Your task to perform on an android device: Go to Wikipedia Image 0: 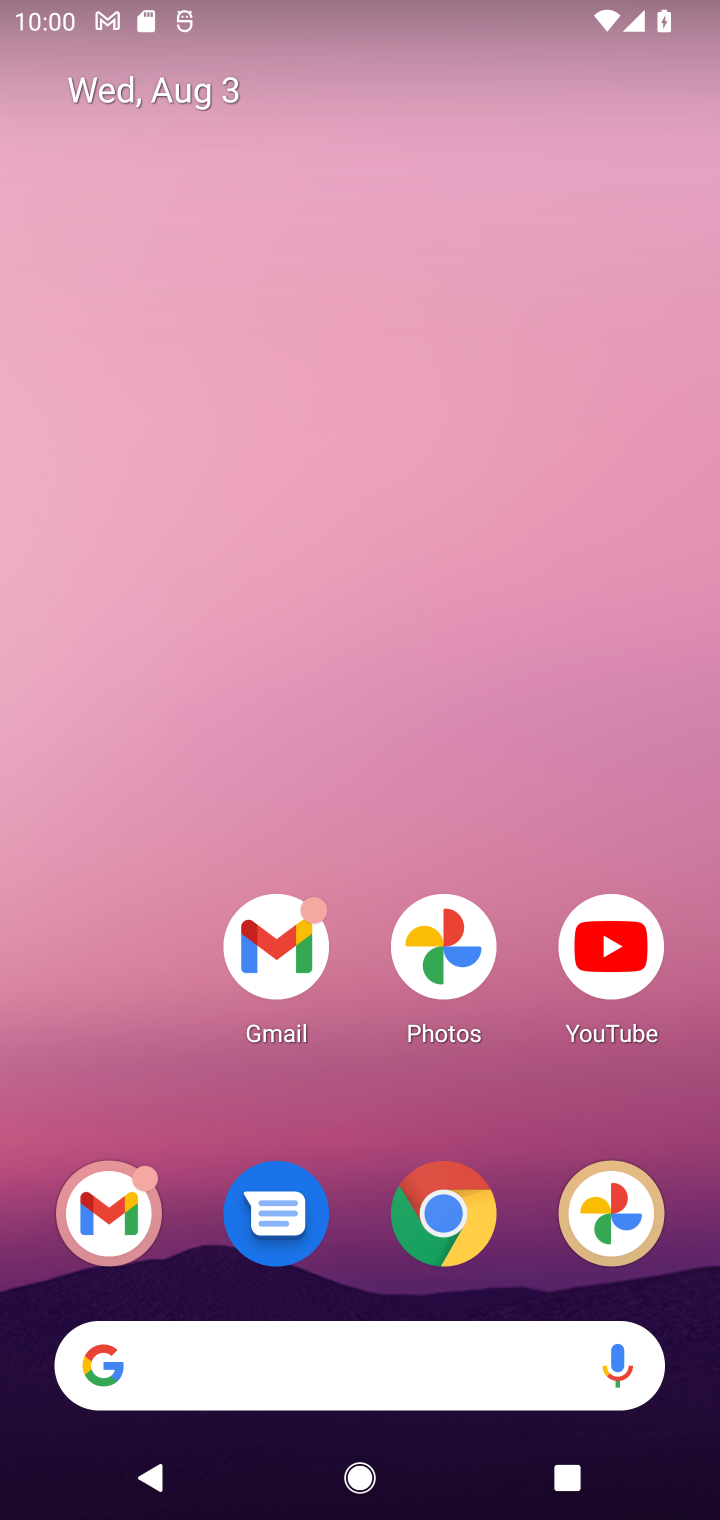
Step 0: click (454, 1232)
Your task to perform on an android device: Go to Wikipedia Image 1: 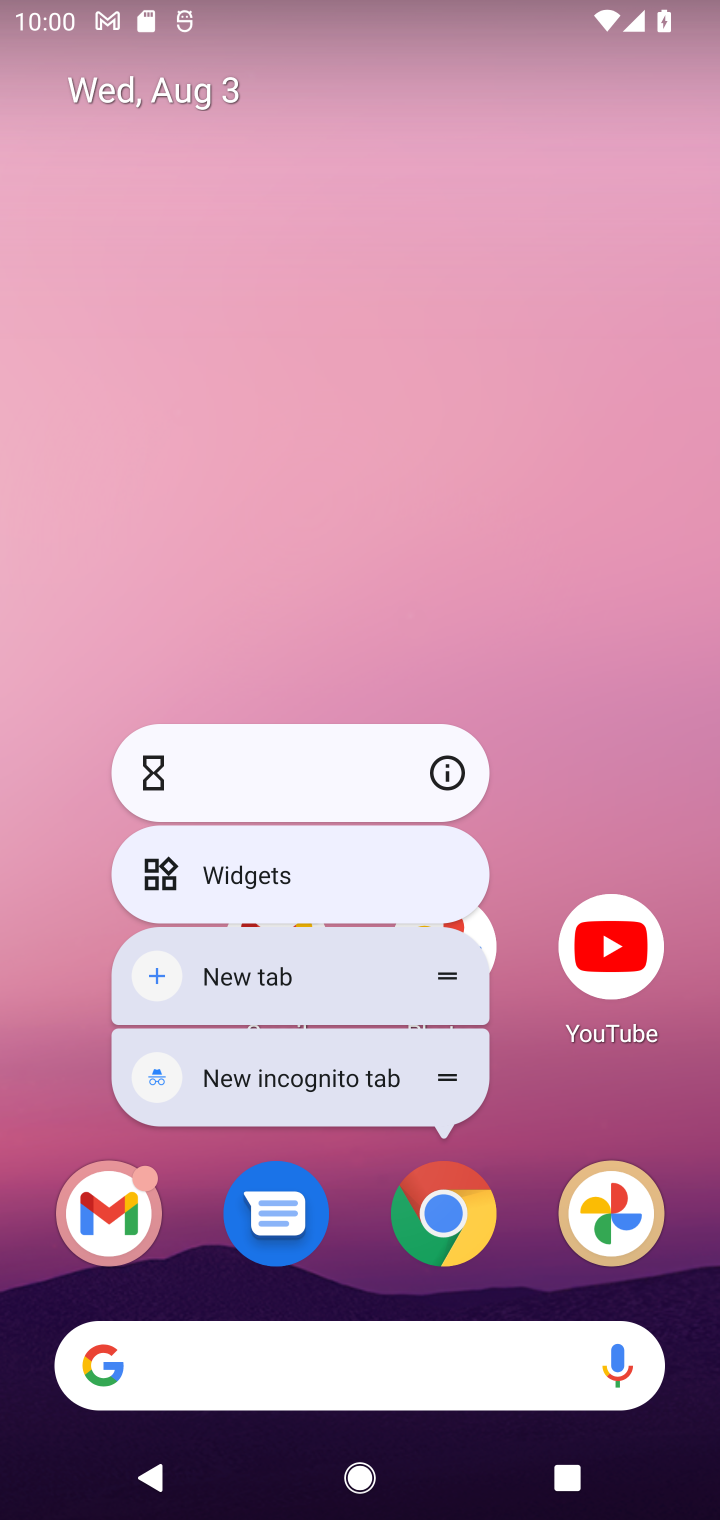
Step 1: click (457, 1255)
Your task to perform on an android device: Go to Wikipedia Image 2: 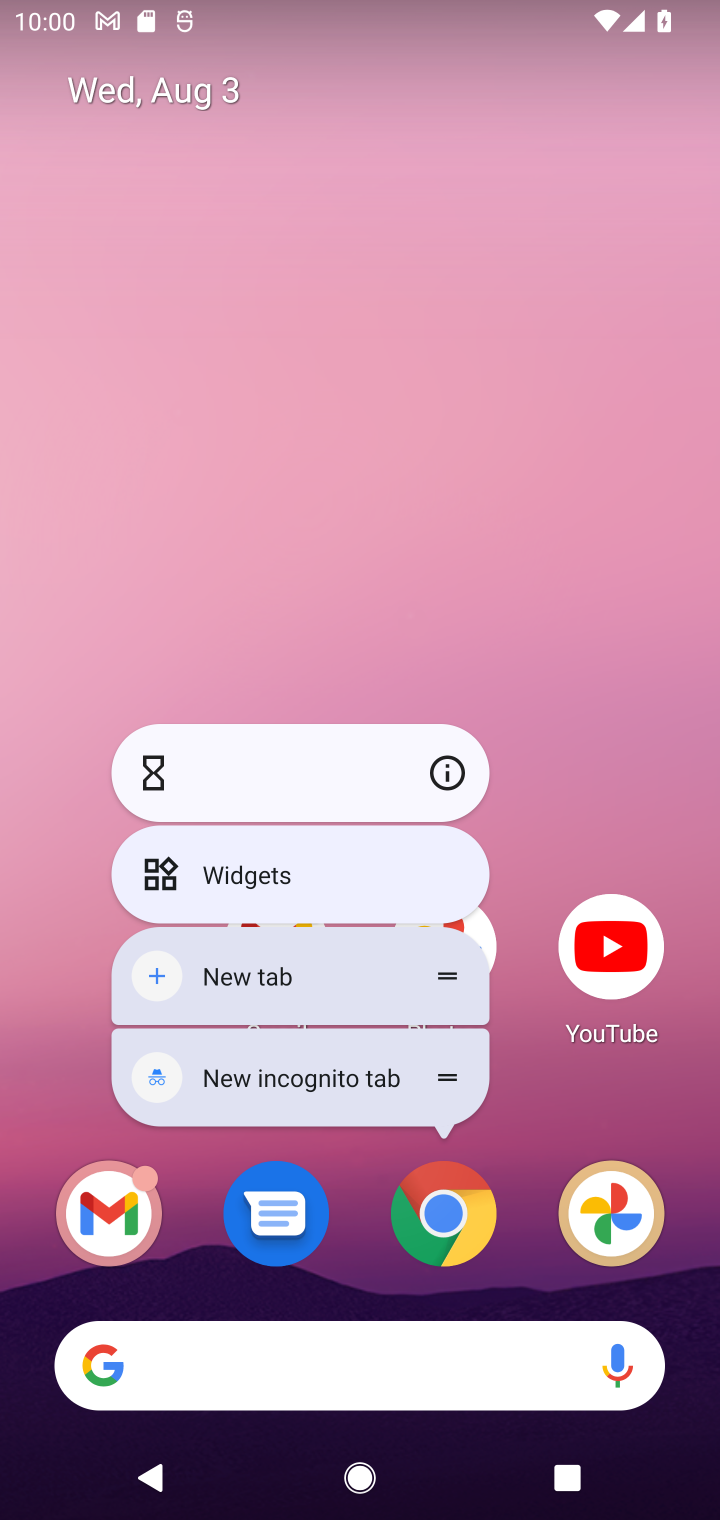
Step 2: click (457, 1244)
Your task to perform on an android device: Go to Wikipedia Image 3: 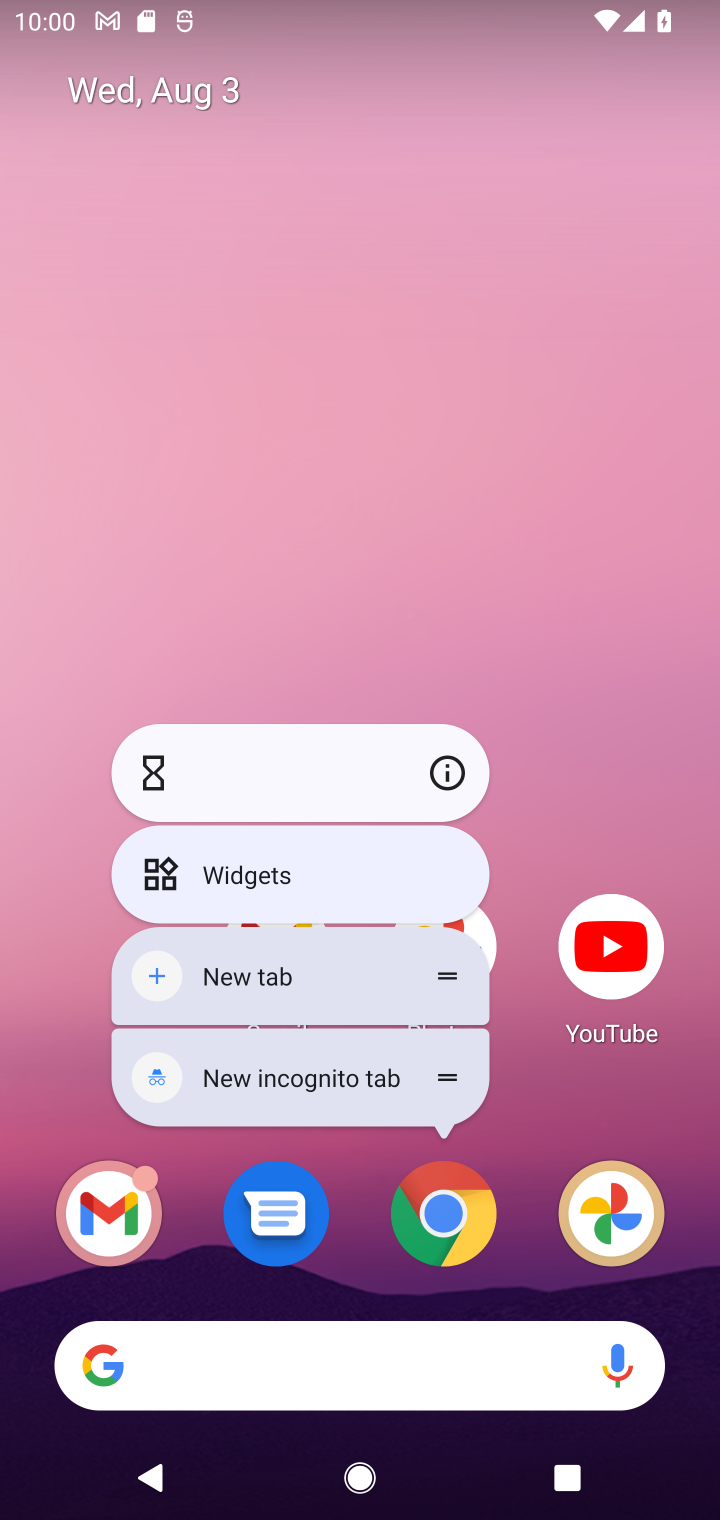
Step 3: click (457, 1244)
Your task to perform on an android device: Go to Wikipedia Image 4: 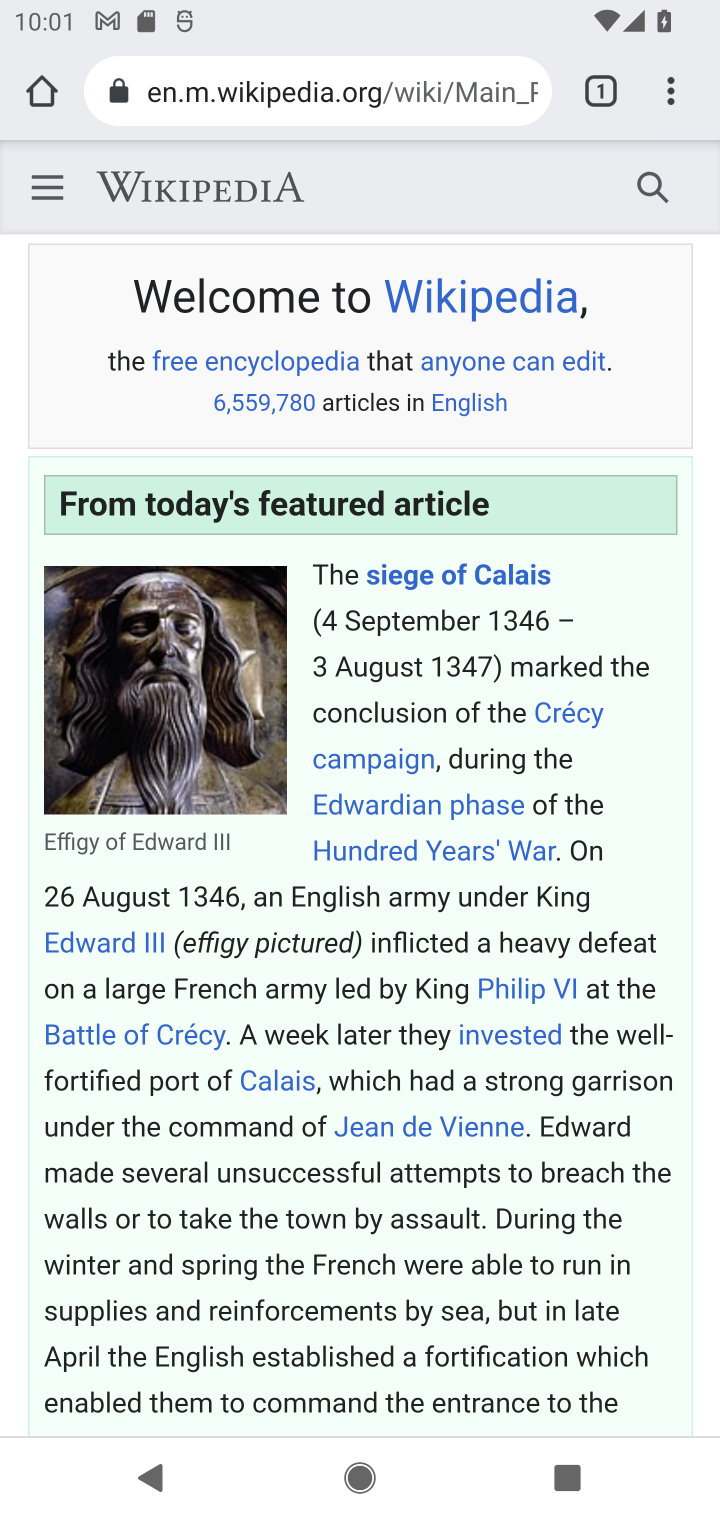
Step 4: task complete